Your task to perform on an android device: open app "Google Chat" (install if not already installed) Image 0: 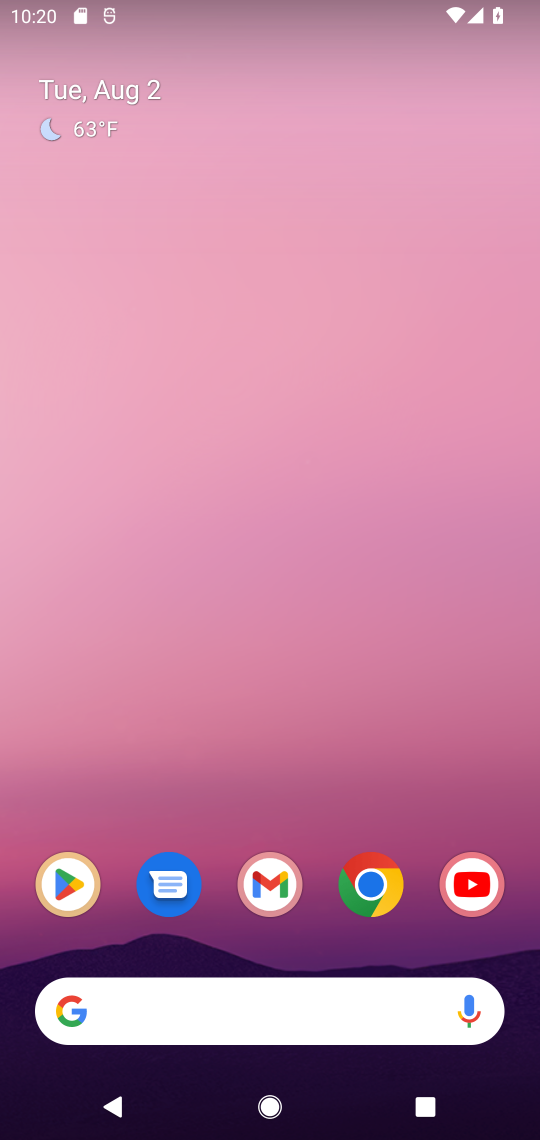
Step 0: click (58, 885)
Your task to perform on an android device: open app "Google Chat" (install if not already installed) Image 1: 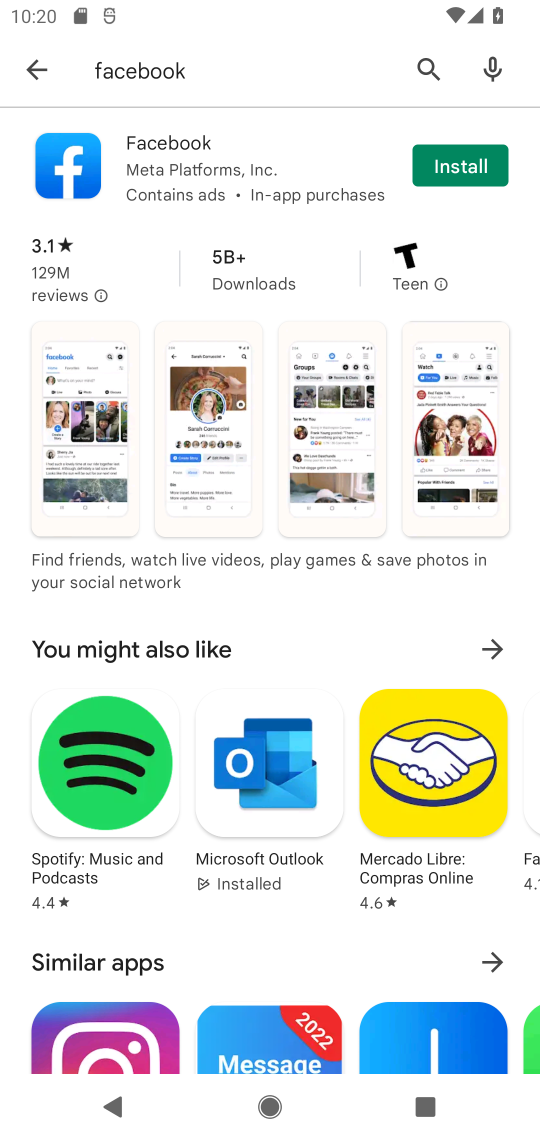
Step 1: click (208, 69)
Your task to perform on an android device: open app "Google Chat" (install if not already installed) Image 2: 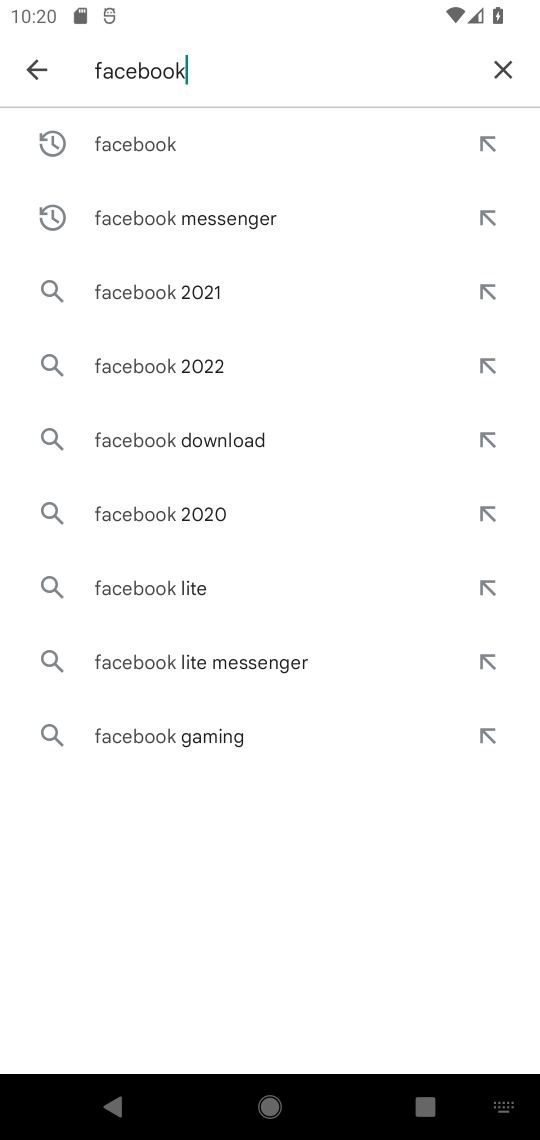
Step 2: click (493, 75)
Your task to perform on an android device: open app "Google Chat" (install if not already installed) Image 3: 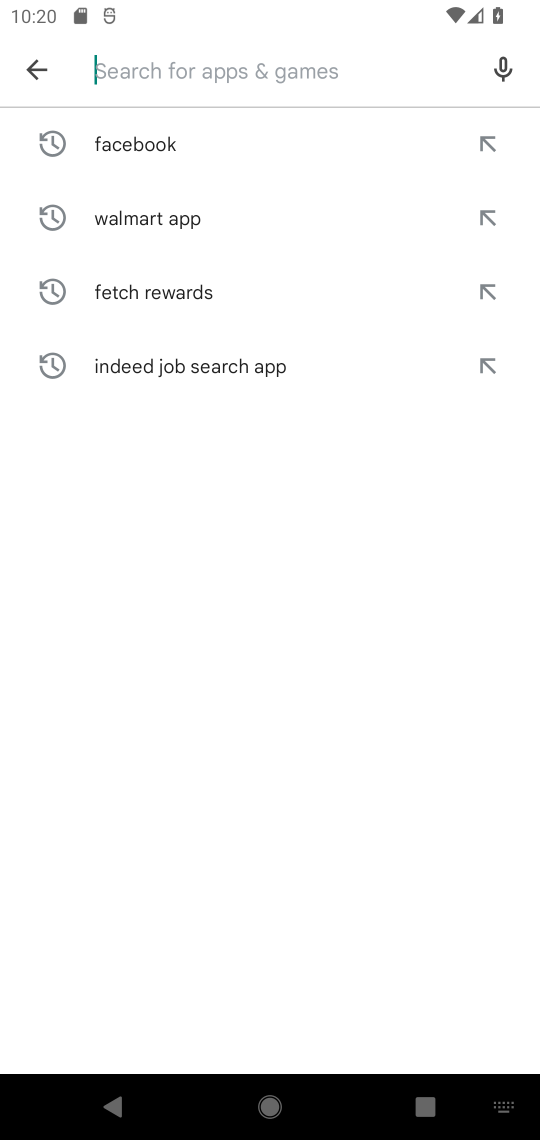
Step 3: type "google chat"
Your task to perform on an android device: open app "Google Chat" (install if not already installed) Image 4: 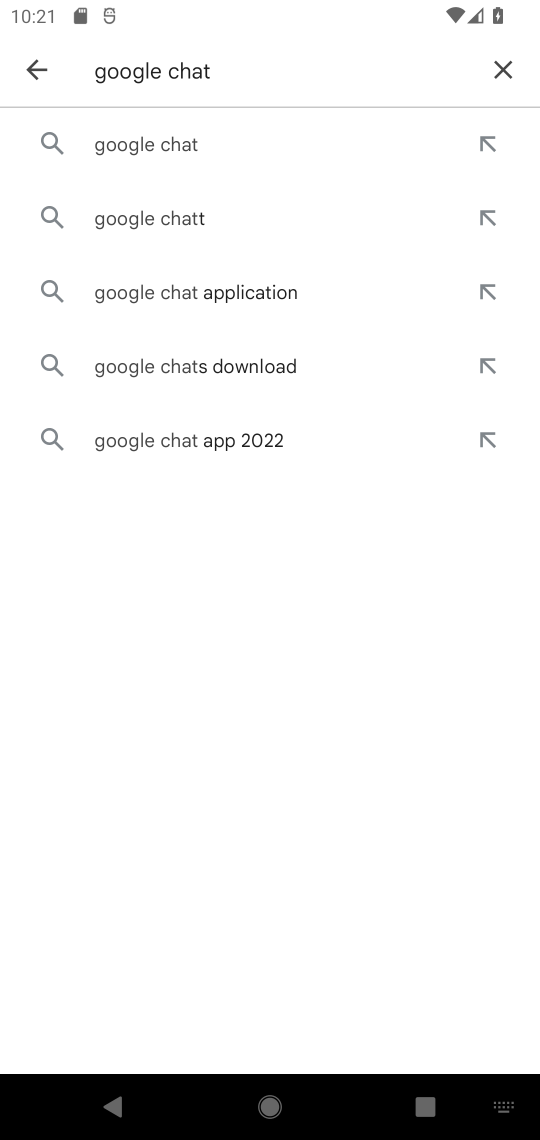
Step 4: click (176, 125)
Your task to perform on an android device: open app "Google Chat" (install if not already installed) Image 5: 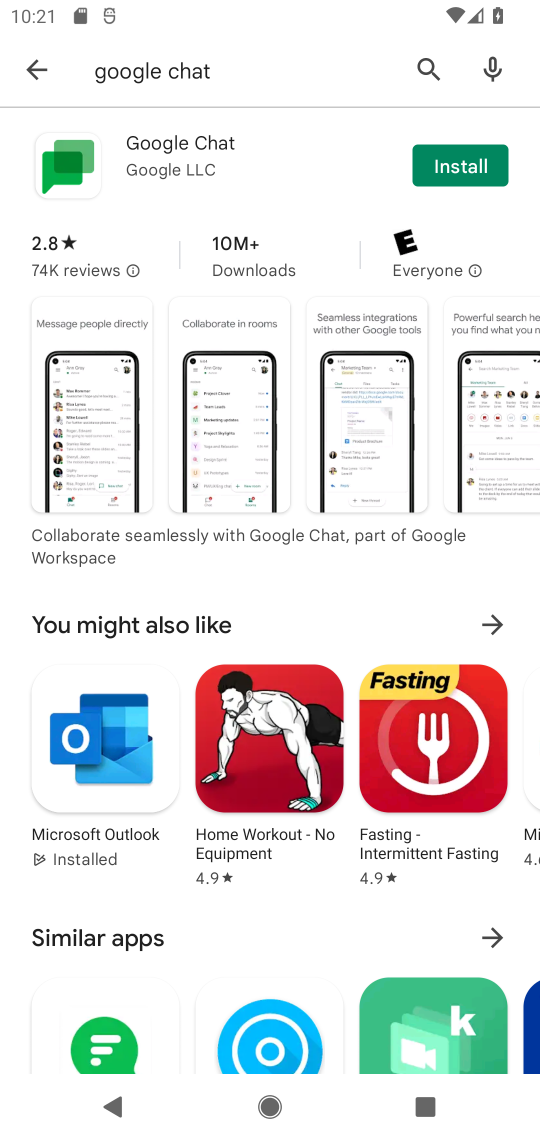
Step 5: click (489, 164)
Your task to perform on an android device: open app "Google Chat" (install if not already installed) Image 6: 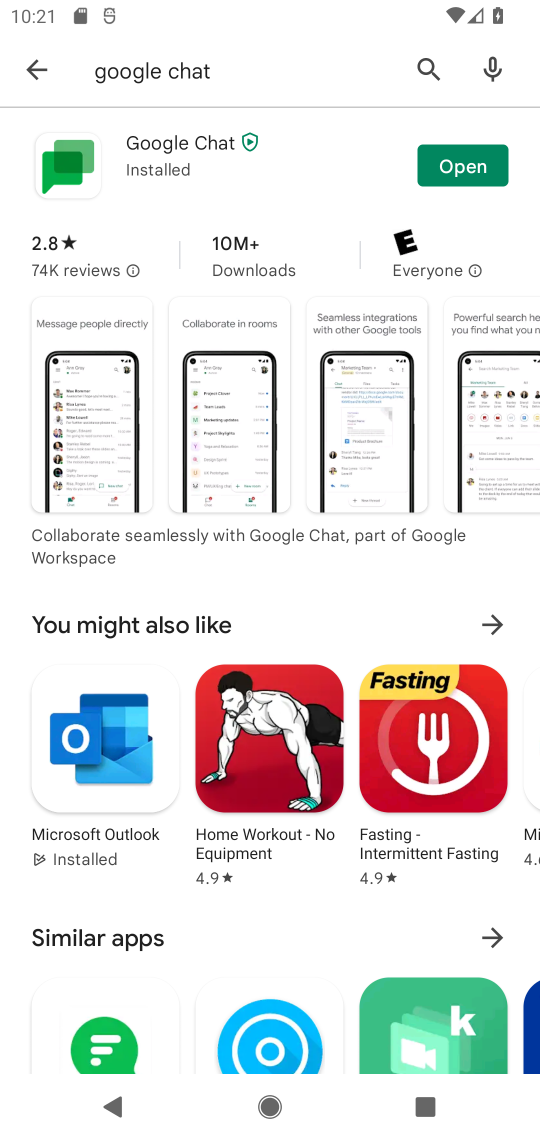
Step 6: click (463, 164)
Your task to perform on an android device: open app "Google Chat" (install if not already installed) Image 7: 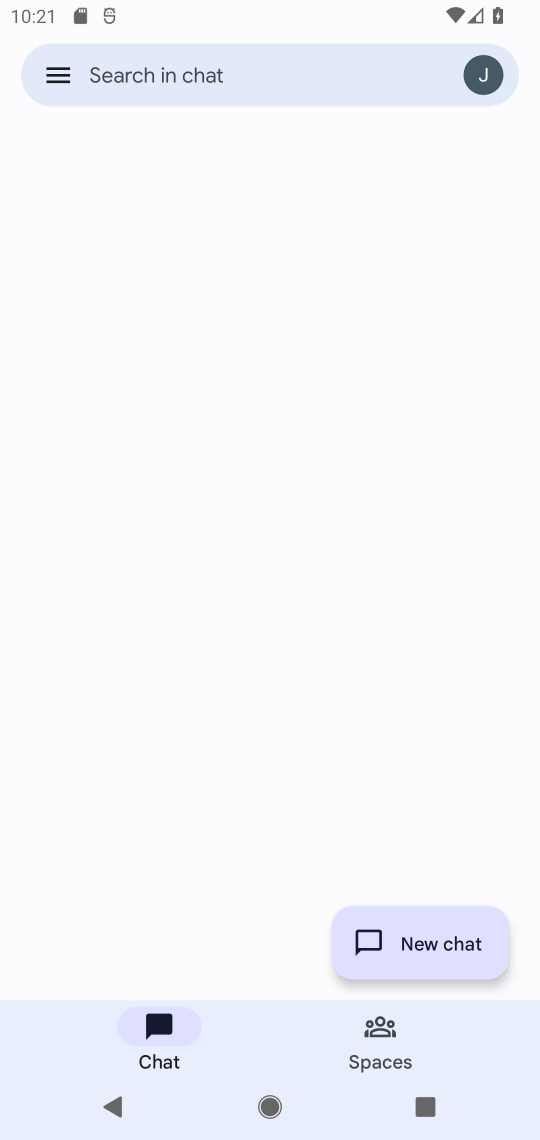
Step 7: task complete